Your task to perform on an android device: Open CNN.com Image 0: 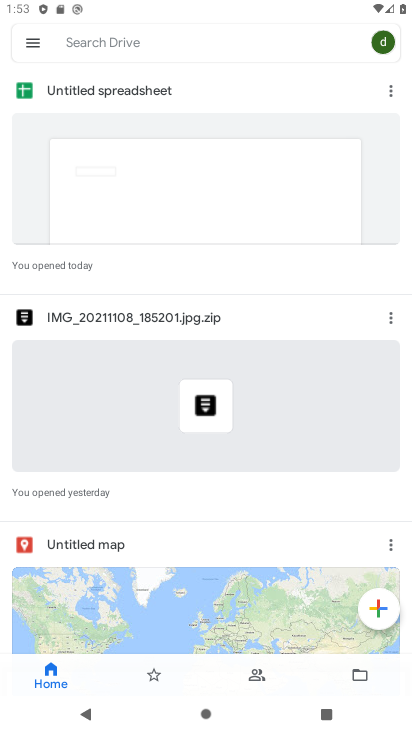
Step 0: press home button
Your task to perform on an android device: Open CNN.com Image 1: 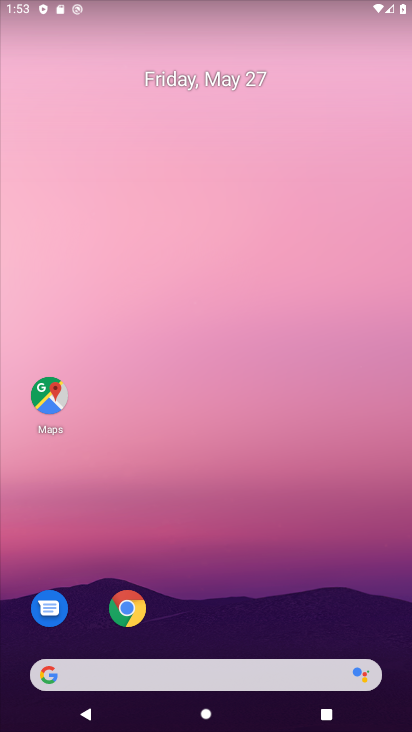
Step 1: click (169, 668)
Your task to perform on an android device: Open CNN.com Image 2: 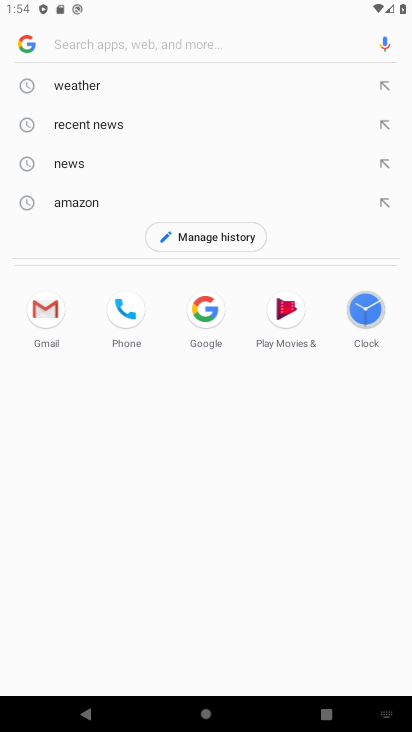
Step 2: click (96, 42)
Your task to perform on an android device: Open CNN.com Image 3: 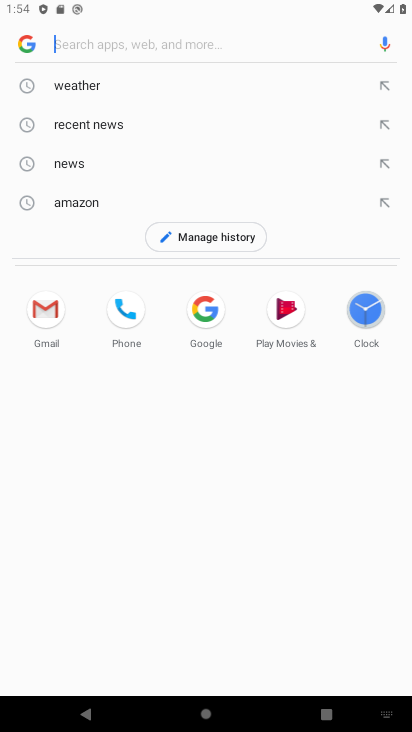
Step 3: type "CNN.com"
Your task to perform on an android device: Open CNN.com Image 4: 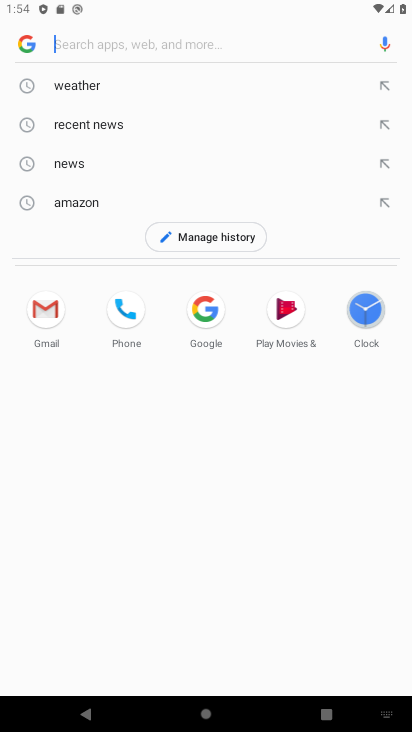
Step 4: click (88, 42)
Your task to perform on an android device: Open CNN.com Image 5: 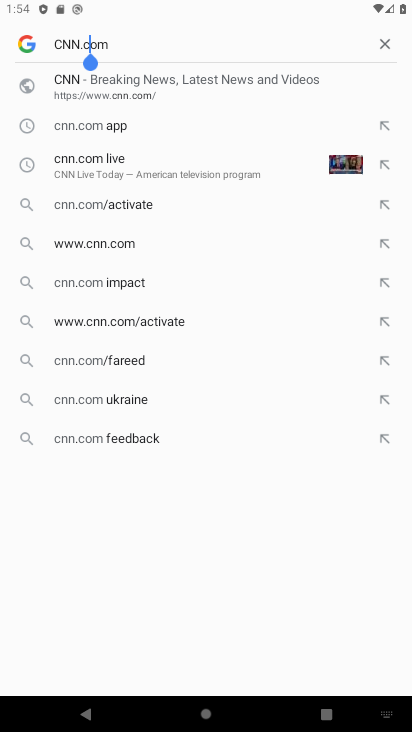
Step 5: click (86, 38)
Your task to perform on an android device: Open CNN.com Image 6: 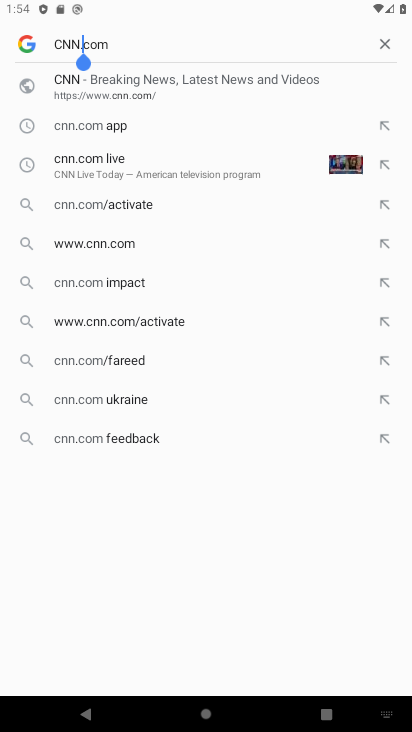
Step 6: click (150, 88)
Your task to perform on an android device: Open CNN.com Image 7: 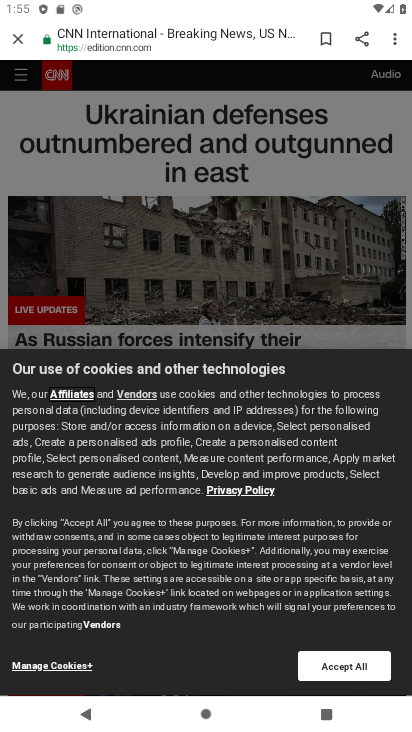
Step 7: task complete